Your task to perform on an android device: What is the recent news? Image 0: 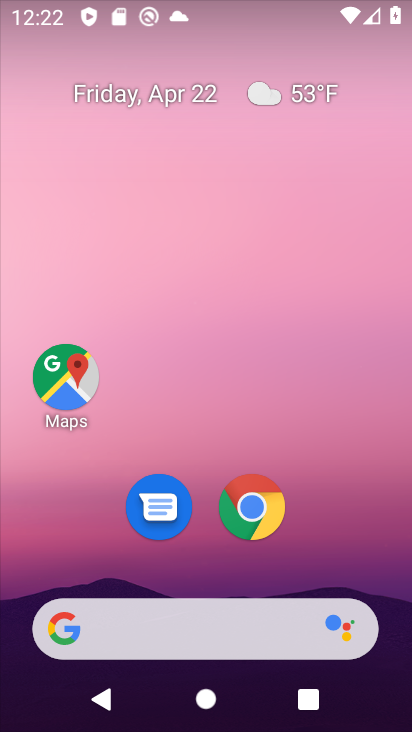
Step 0: click (231, 503)
Your task to perform on an android device: What is the recent news? Image 1: 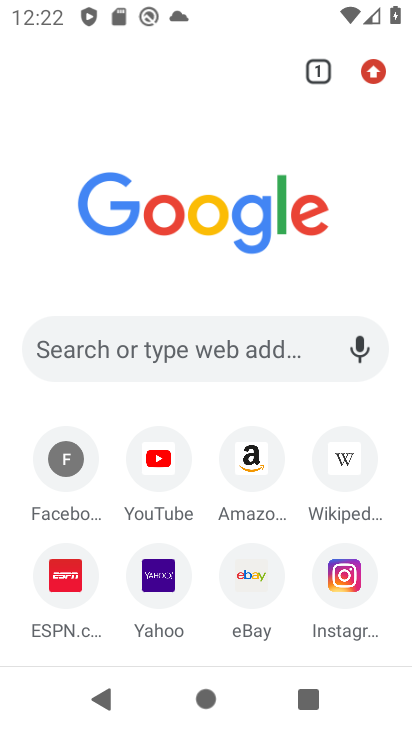
Step 1: click (210, 351)
Your task to perform on an android device: What is the recent news? Image 2: 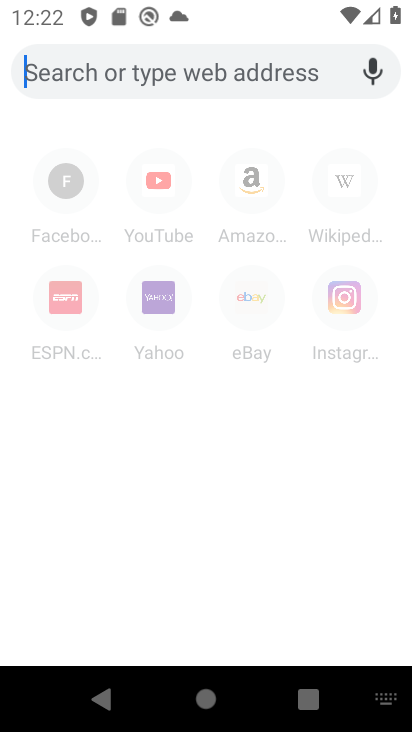
Step 2: type "what is the recent news"
Your task to perform on an android device: What is the recent news? Image 3: 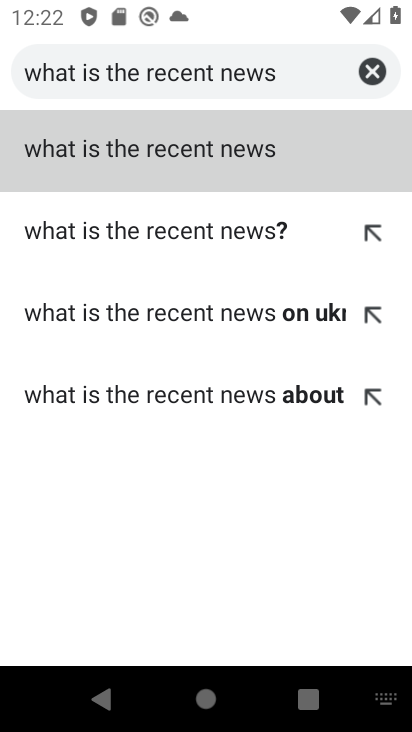
Step 3: click (183, 233)
Your task to perform on an android device: What is the recent news? Image 4: 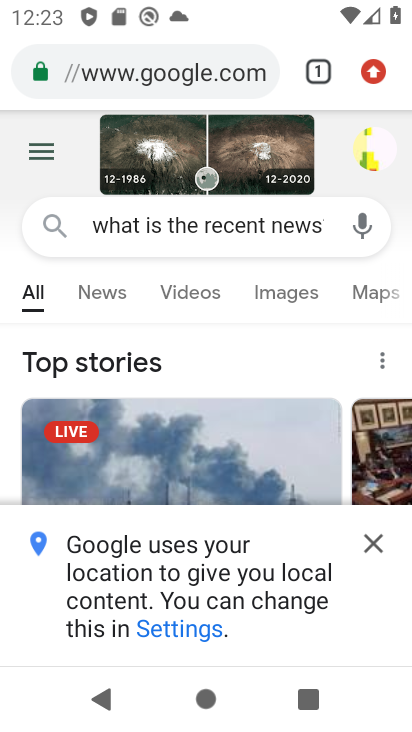
Step 4: click (103, 292)
Your task to perform on an android device: What is the recent news? Image 5: 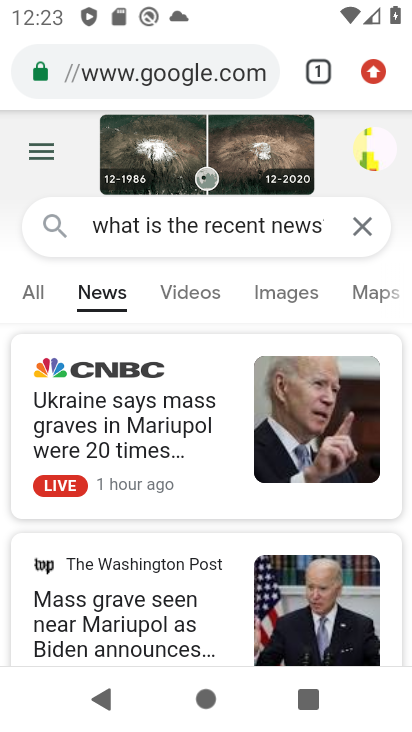
Step 5: task complete